Your task to perform on an android device: turn off location Image 0: 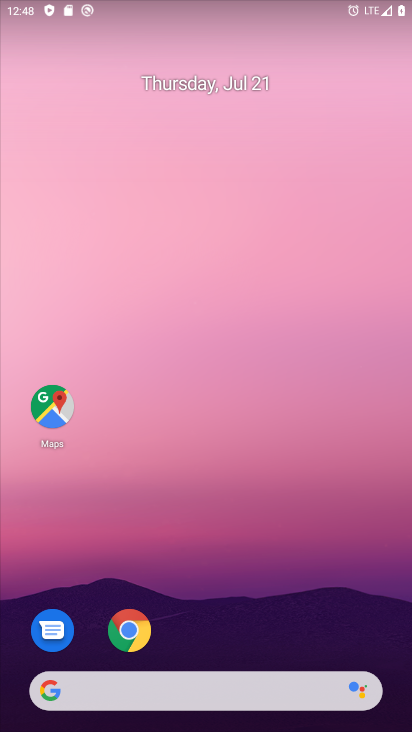
Step 0: drag from (182, 656) to (236, 87)
Your task to perform on an android device: turn off location Image 1: 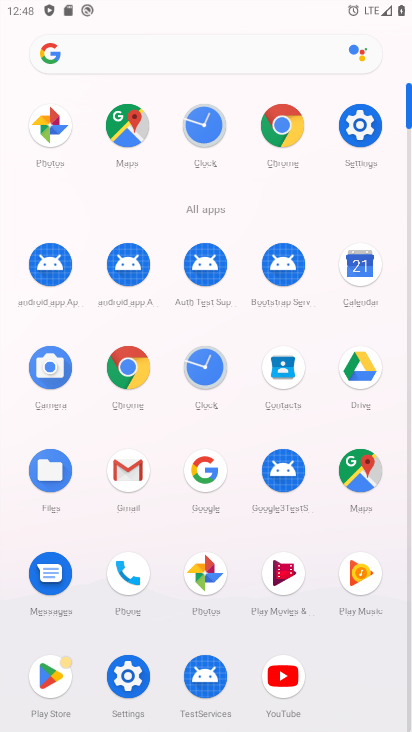
Step 1: click (347, 124)
Your task to perform on an android device: turn off location Image 2: 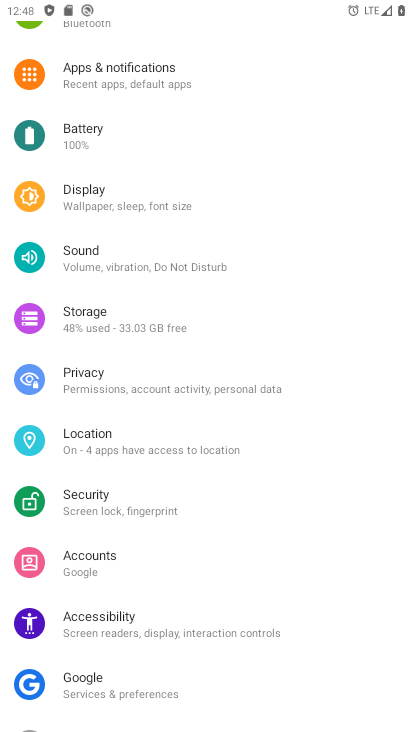
Step 2: click (91, 425)
Your task to perform on an android device: turn off location Image 3: 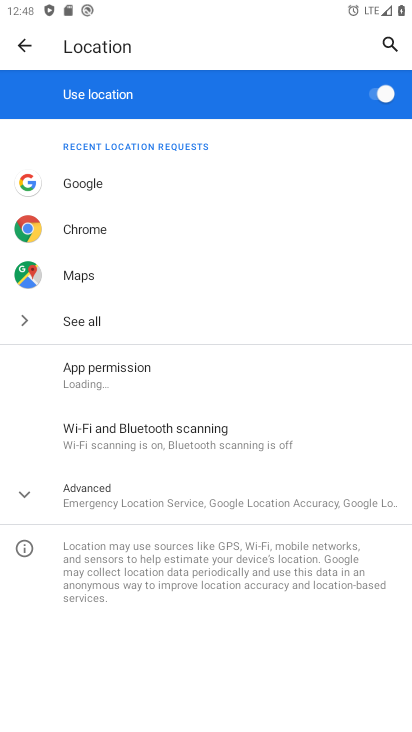
Step 3: click (388, 92)
Your task to perform on an android device: turn off location Image 4: 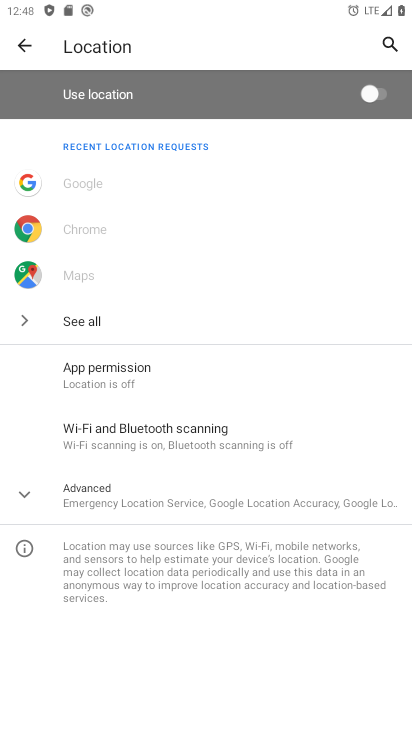
Step 4: task complete